Your task to perform on an android device: turn on improve location accuracy Image 0: 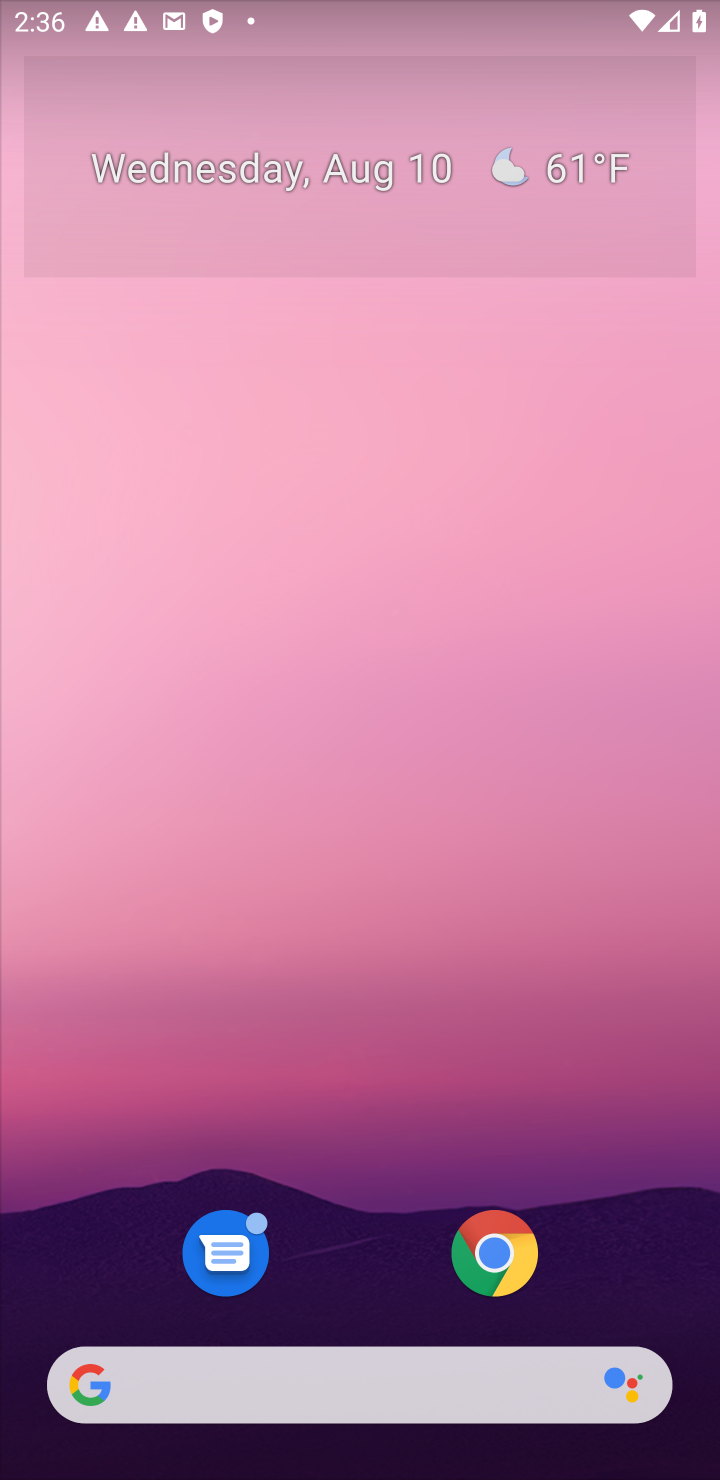
Step 0: drag from (413, 1081) to (492, 377)
Your task to perform on an android device: turn on improve location accuracy Image 1: 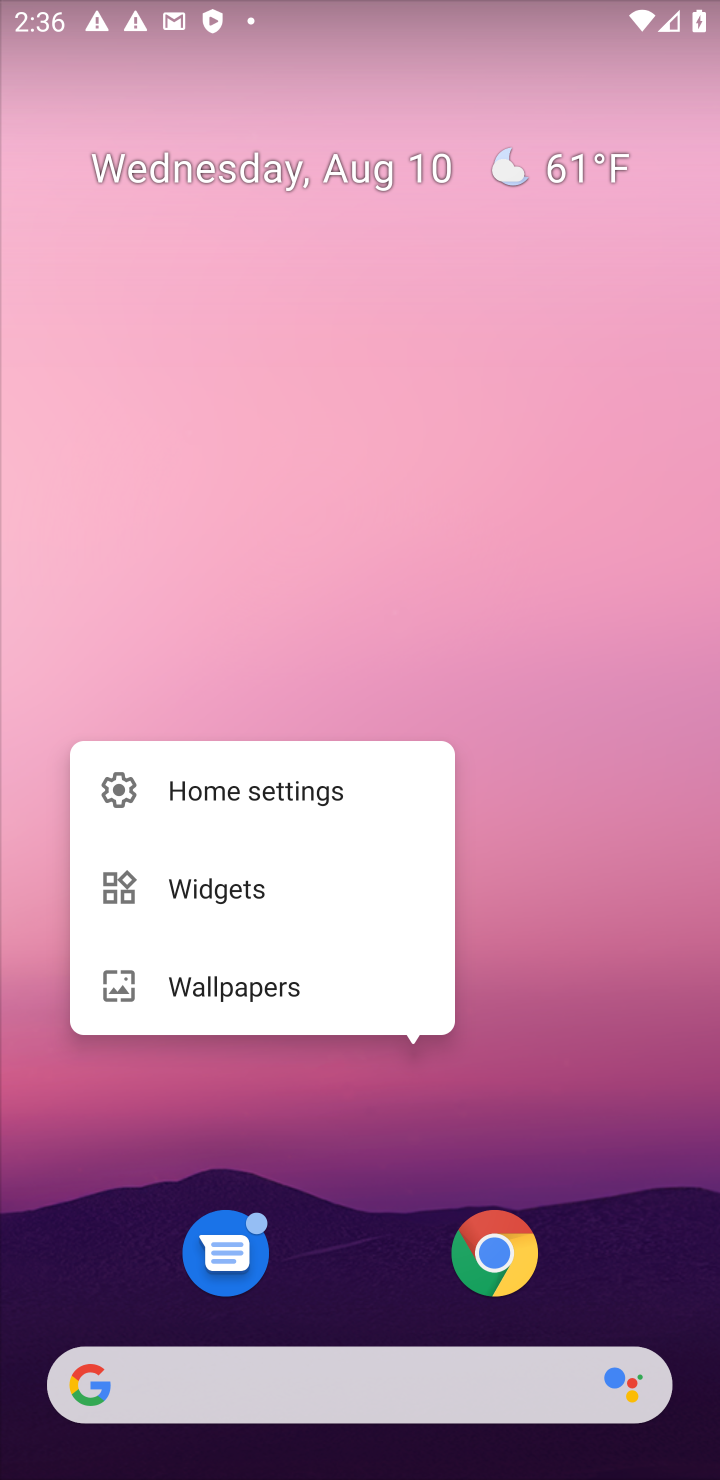
Step 1: click (536, 541)
Your task to perform on an android device: turn on improve location accuracy Image 2: 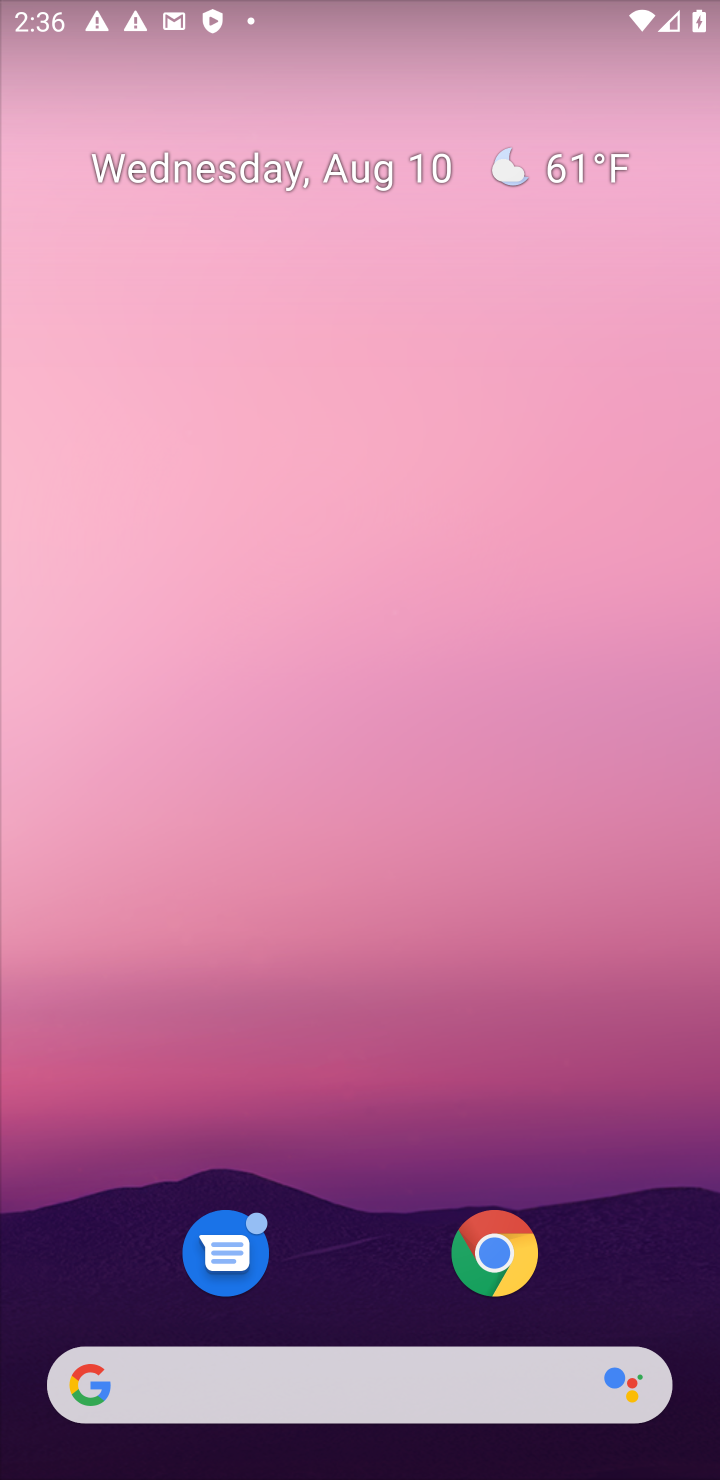
Step 2: click (536, 541)
Your task to perform on an android device: turn on improve location accuracy Image 3: 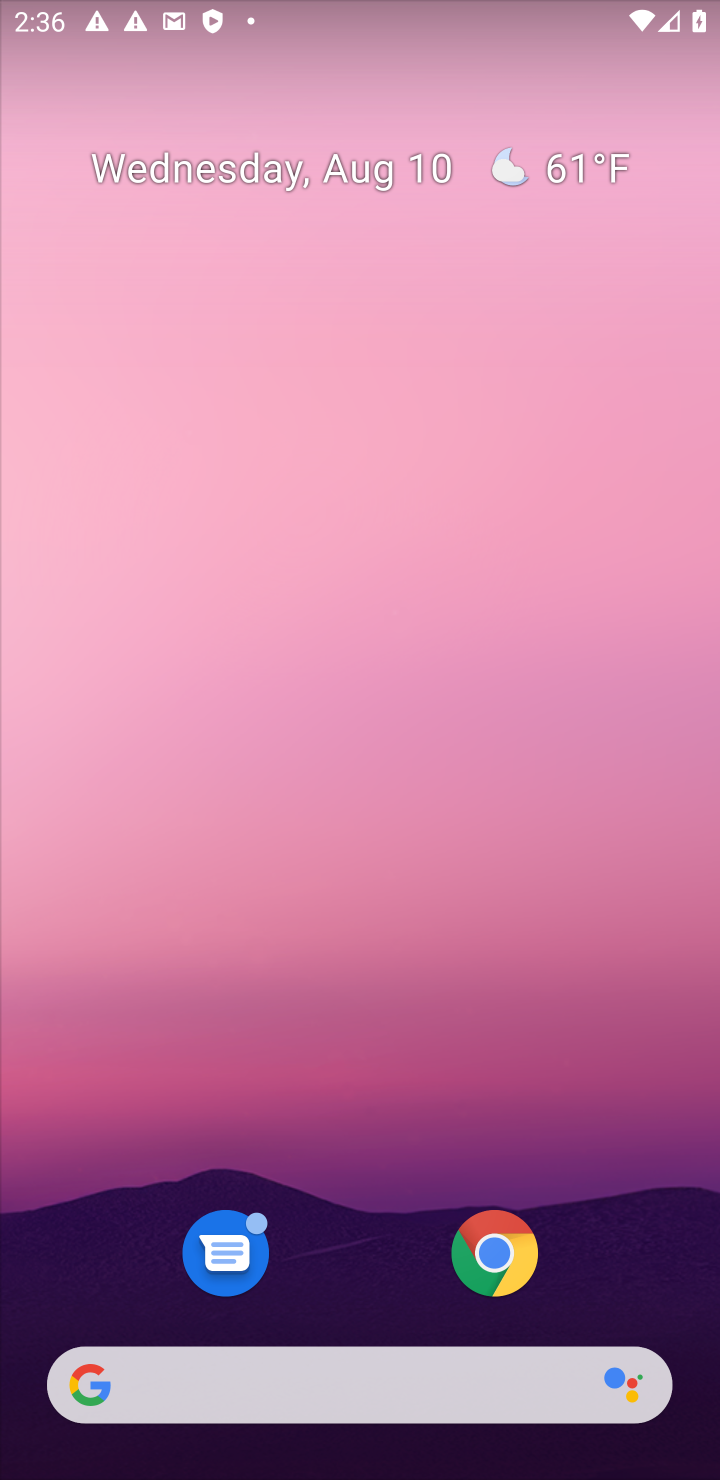
Step 3: drag from (308, 970) to (274, 318)
Your task to perform on an android device: turn on improve location accuracy Image 4: 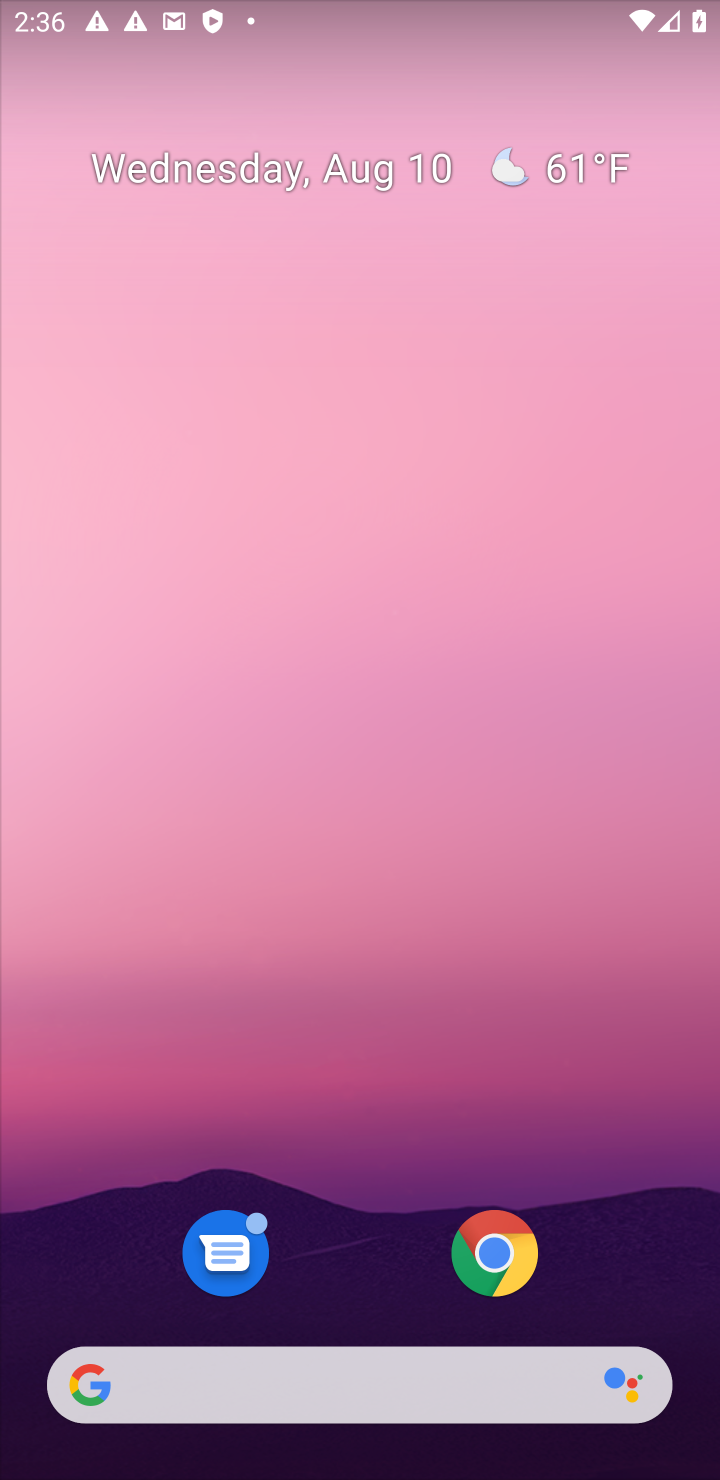
Step 4: drag from (379, 1144) to (452, 268)
Your task to perform on an android device: turn on improve location accuracy Image 5: 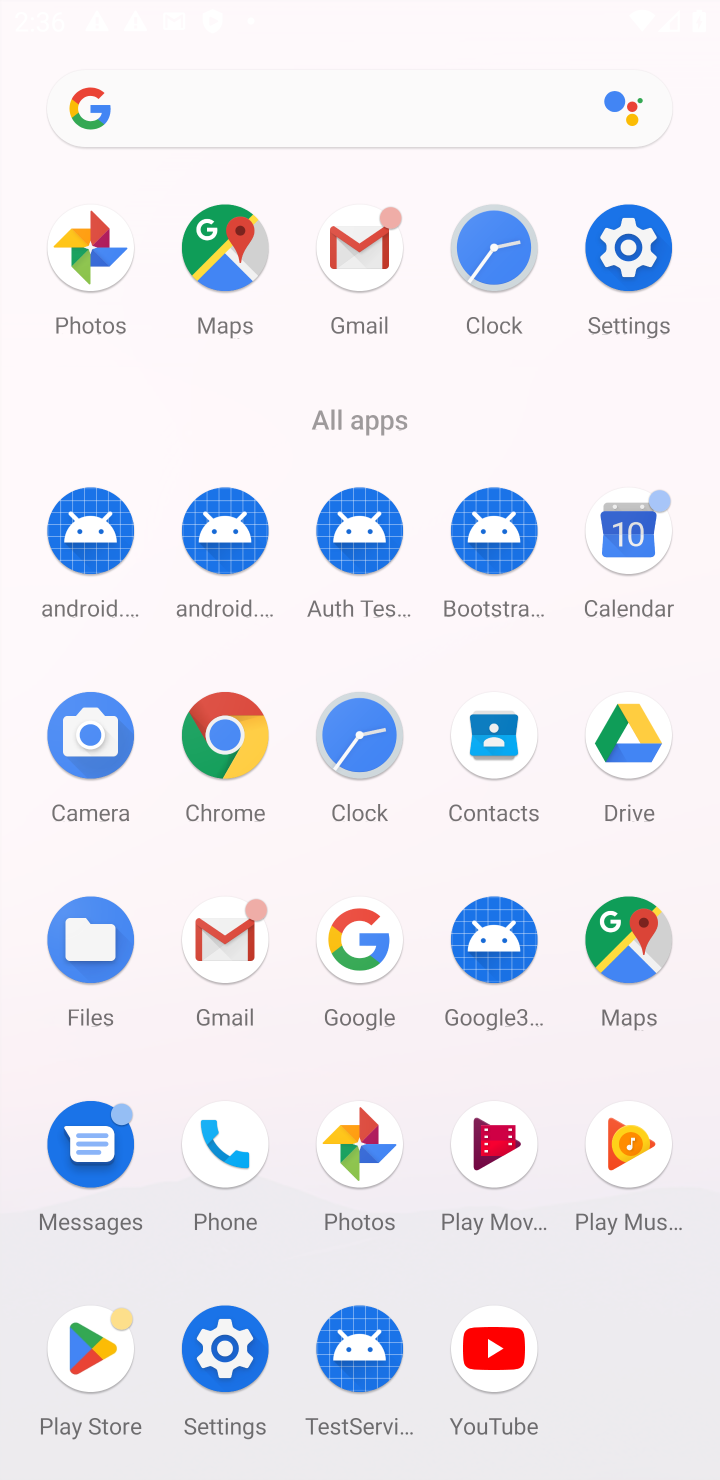
Step 5: click (634, 265)
Your task to perform on an android device: turn on improve location accuracy Image 6: 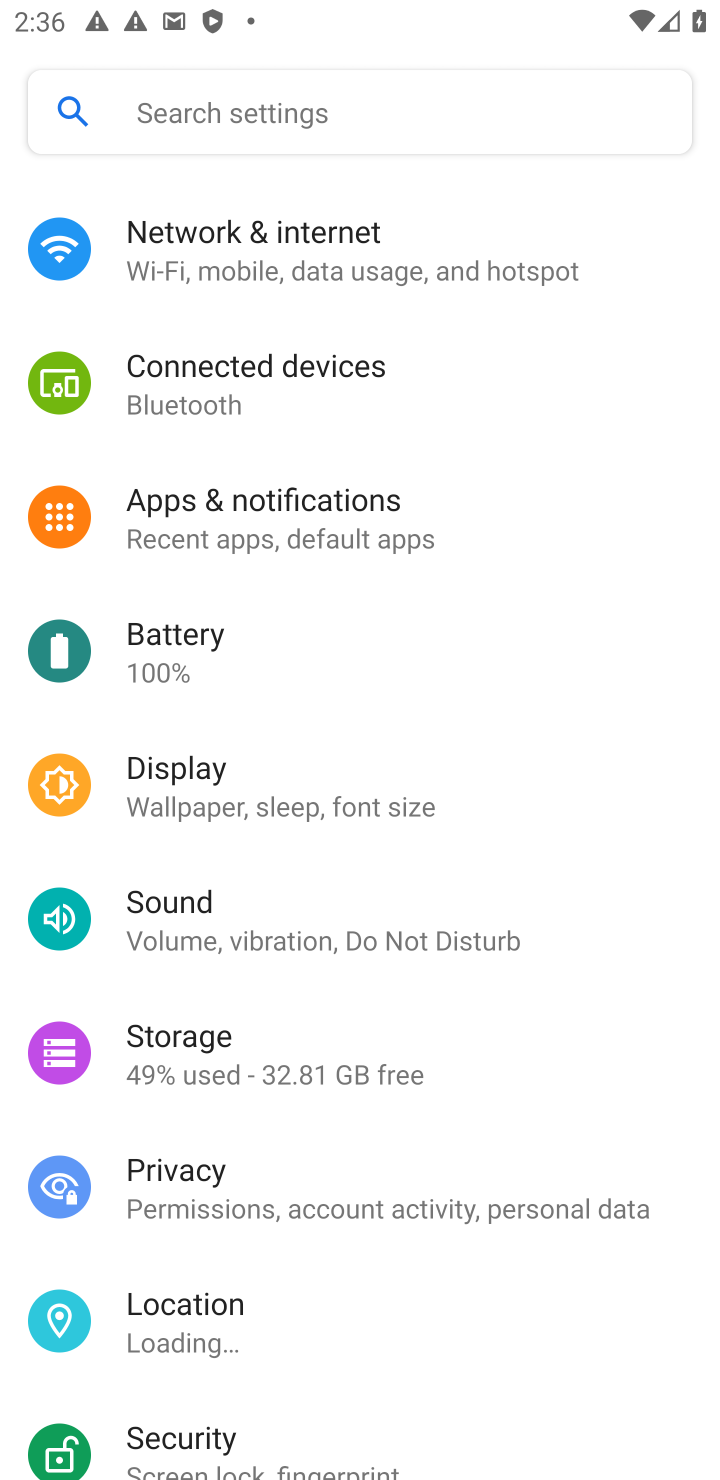
Step 6: task complete